Your task to perform on an android device: find photos in the google photos app Image 0: 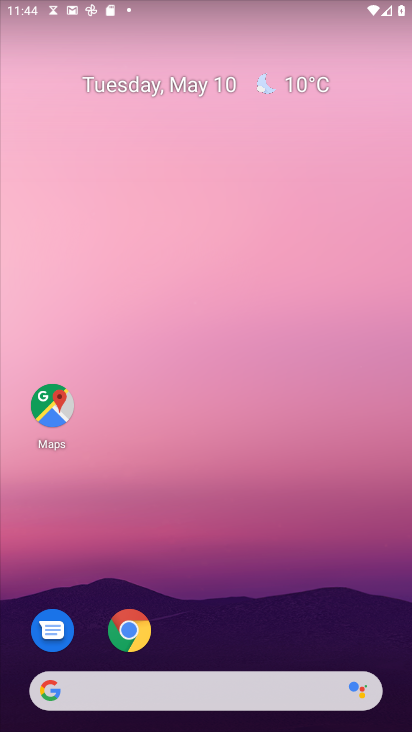
Step 0: drag from (261, 625) to (298, 5)
Your task to perform on an android device: find photos in the google photos app Image 1: 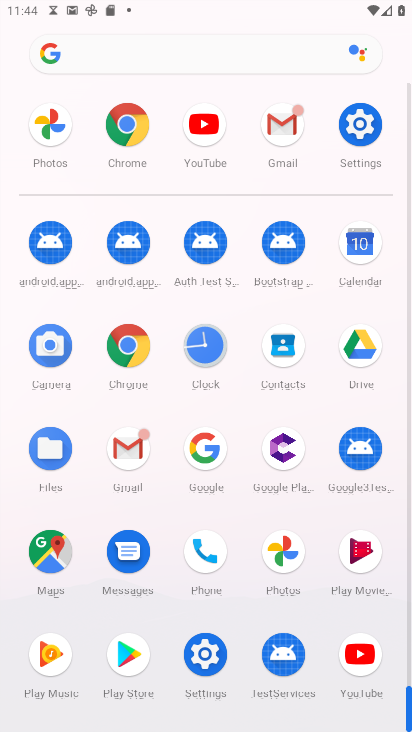
Step 1: click (273, 559)
Your task to perform on an android device: find photos in the google photos app Image 2: 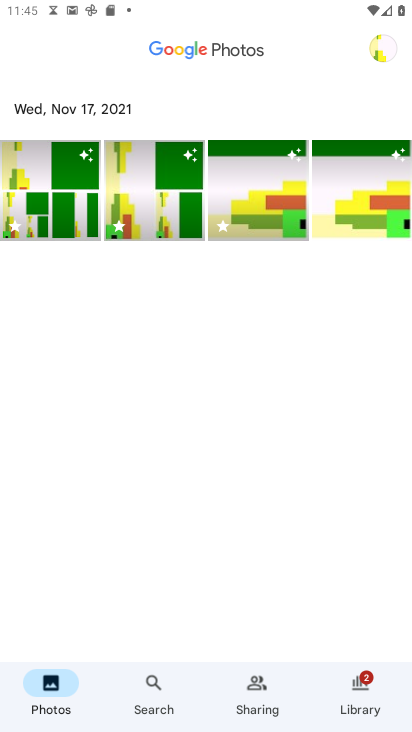
Step 2: task complete